Your task to perform on an android device: Go to accessibility settings Image 0: 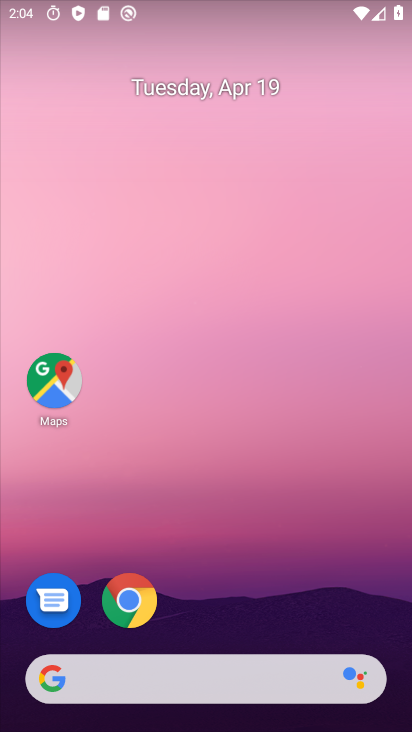
Step 0: drag from (256, 690) to (99, 337)
Your task to perform on an android device: Go to accessibility settings Image 1: 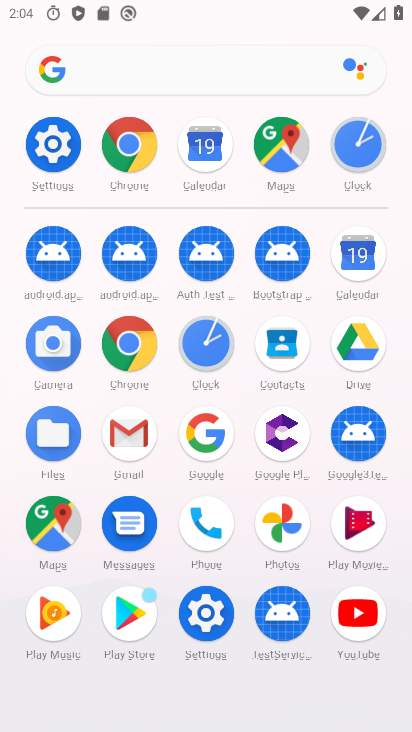
Step 1: click (58, 115)
Your task to perform on an android device: Go to accessibility settings Image 2: 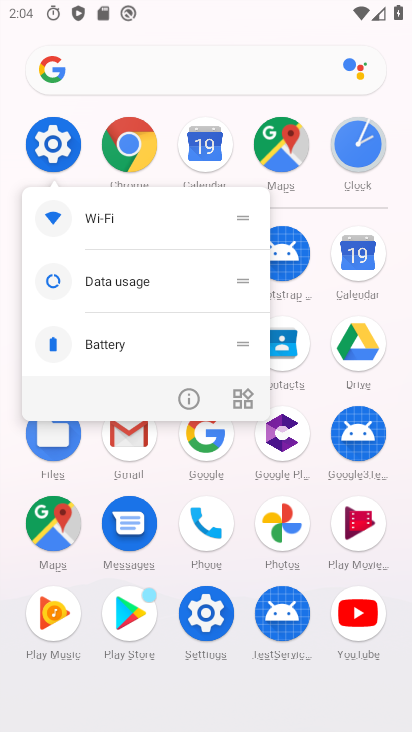
Step 2: click (57, 147)
Your task to perform on an android device: Go to accessibility settings Image 3: 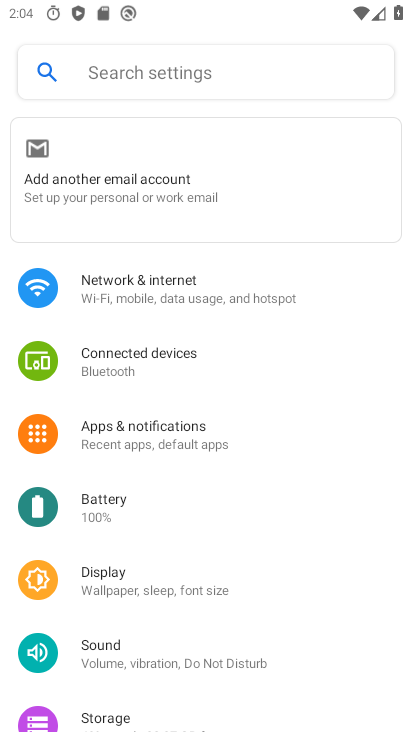
Step 3: click (165, 58)
Your task to perform on an android device: Go to accessibility settings Image 4: 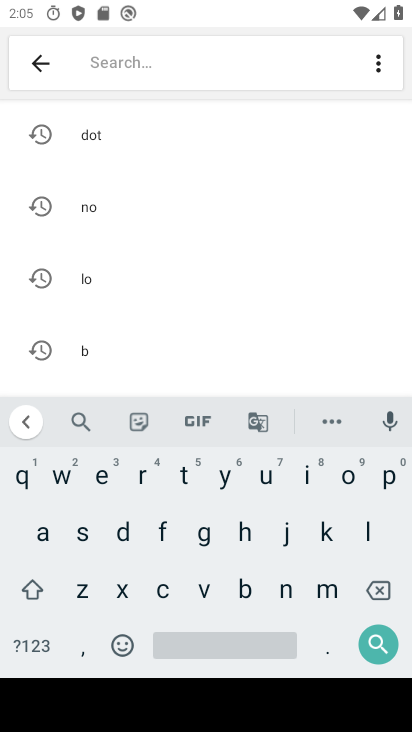
Step 4: click (51, 543)
Your task to perform on an android device: Go to accessibility settings Image 5: 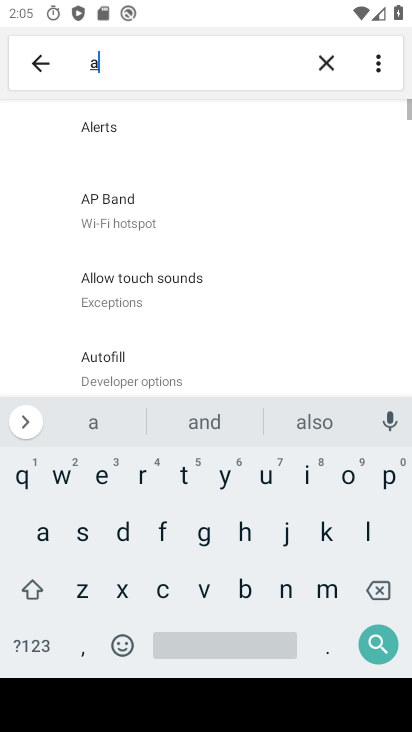
Step 5: click (168, 597)
Your task to perform on an android device: Go to accessibility settings Image 6: 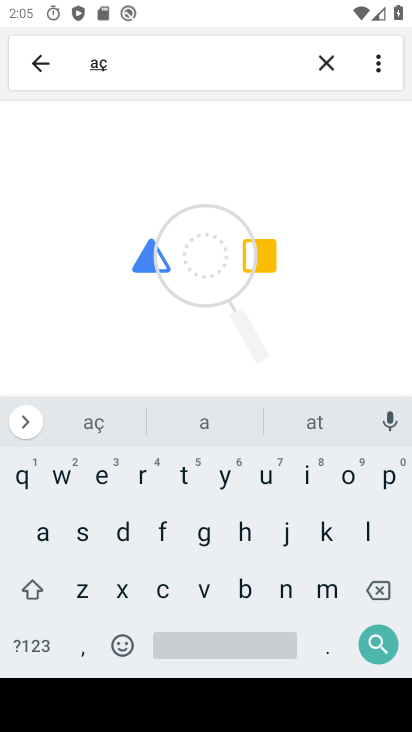
Step 6: click (395, 592)
Your task to perform on an android device: Go to accessibility settings Image 7: 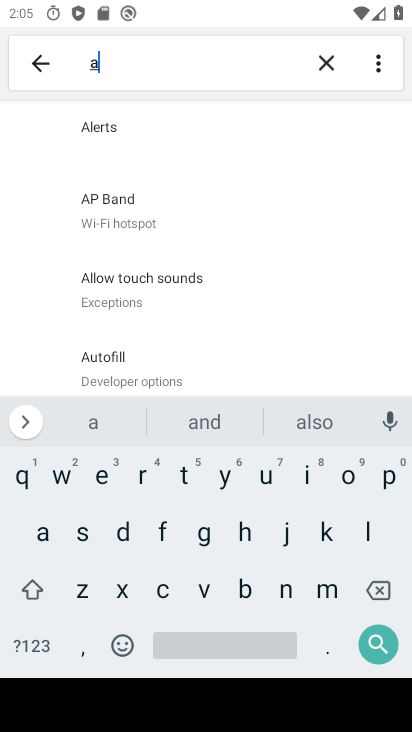
Step 7: click (164, 591)
Your task to perform on an android device: Go to accessibility settings Image 8: 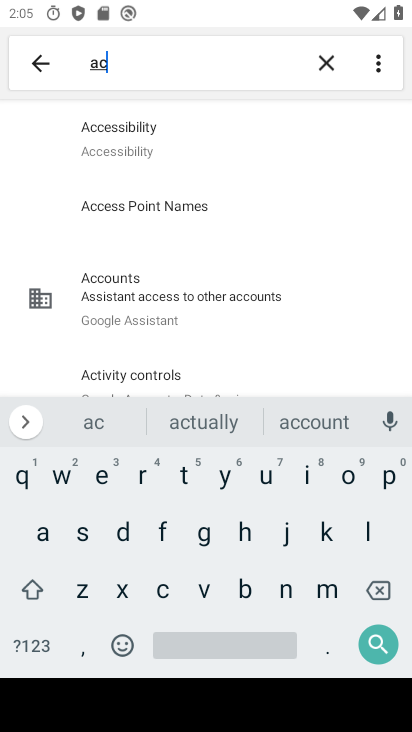
Step 8: click (159, 147)
Your task to perform on an android device: Go to accessibility settings Image 9: 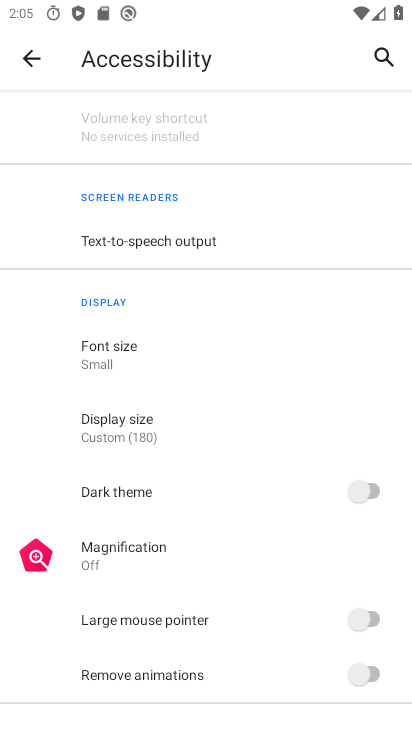
Step 9: task complete